Your task to perform on an android device: Open the Play Movies app and select the watchlist tab. Image 0: 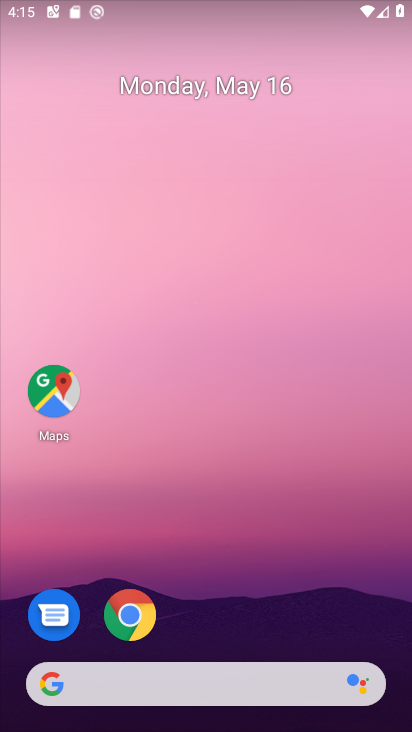
Step 0: drag from (231, 630) to (309, 148)
Your task to perform on an android device: Open the Play Movies app and select the watchlist tab. Image 1: 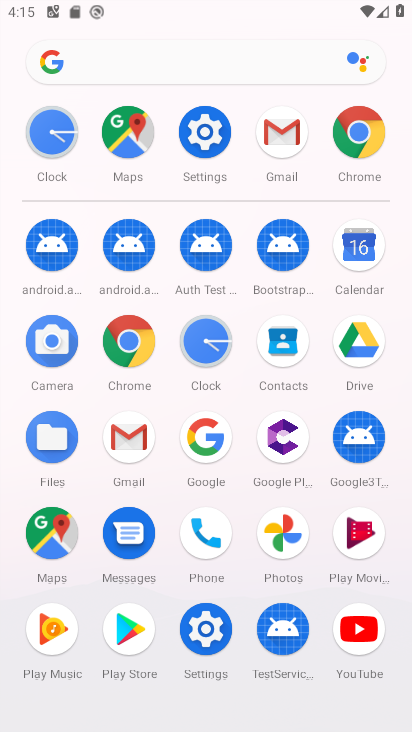
Step 1: click (363, 549)
Your task to perform on an android device: Open the Play Movies app and select the watchlist tab. Image 2: 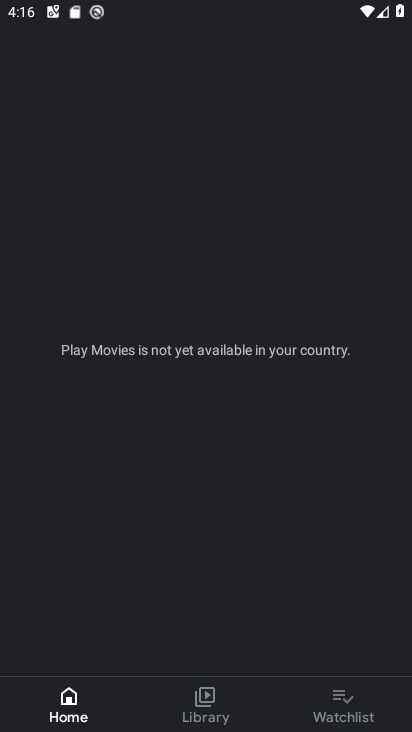
Step 2: click (351, 709)
Your task to perform on an android device: Open the Play Movies app and select the watchlist tab. Image 3: 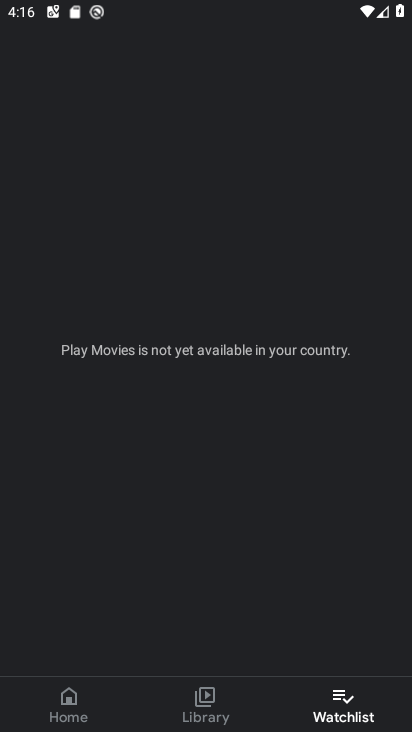
Step 3: task complete